Your task to perform on an android device: check battery use Image 0: 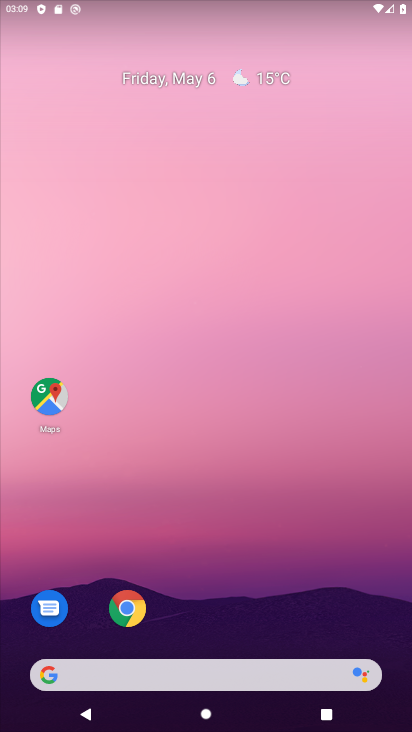
Step 0: click (120, 613)
Your task to perform on an android device: check battery use Image 1: 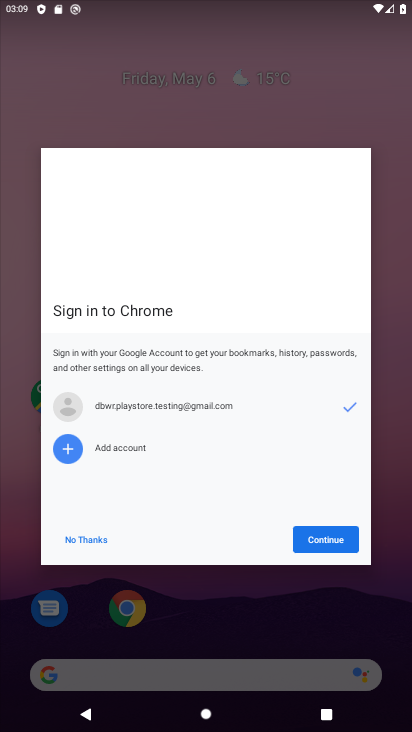
Step 1: click (120, 613)
Your task to perform on an android device: check battery use Image 2: 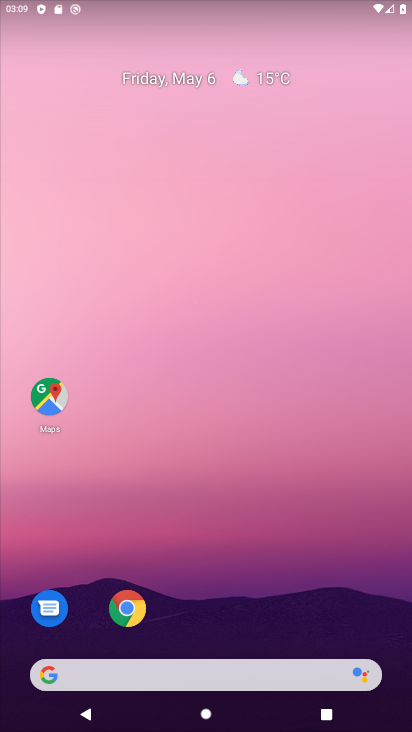
Step 2: click (126, 609)
Your task to perform on an android device: check battery use Image 3: 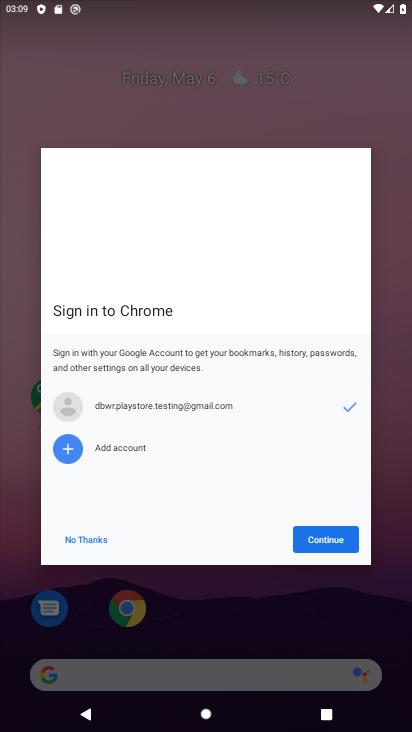
Step 3: click (335, 534)
Your task to perform on an android device: check battery use Image 4: 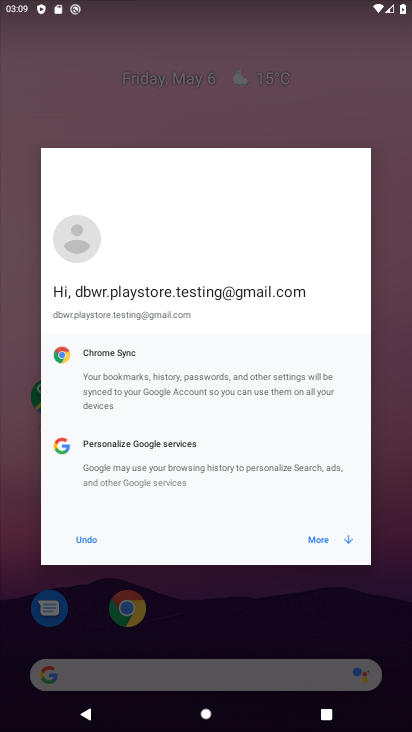
Step 4: click (335, 534)
Your task to perform on an android device: check battery use Image 5: 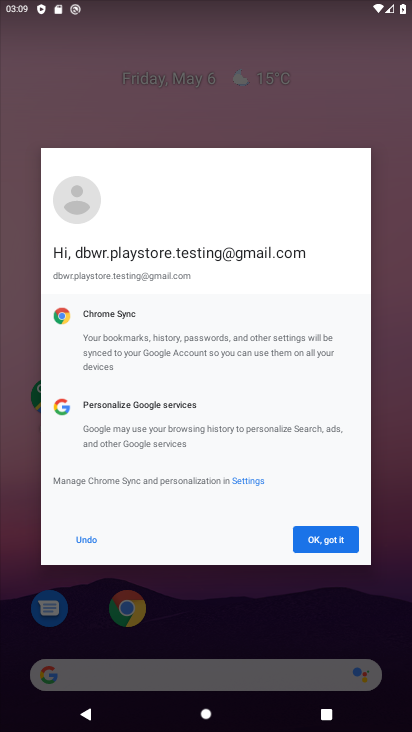
Step 5: click (335, 534)
Your task to perform on an android device: check battery use Image 6: 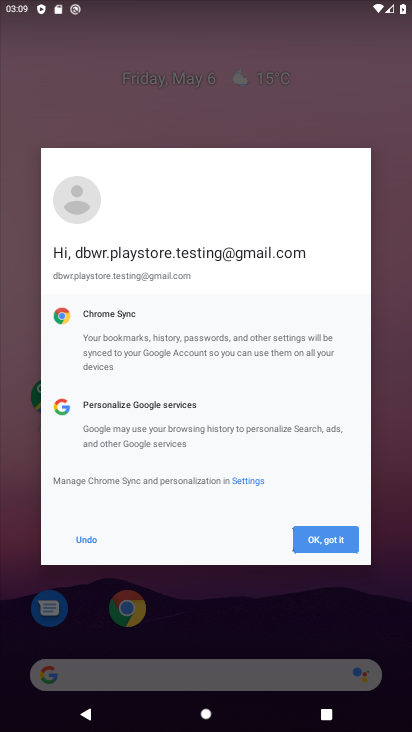
Step 6: click (324, 534)
Your task to perform on an android device: check battery use Image 7: 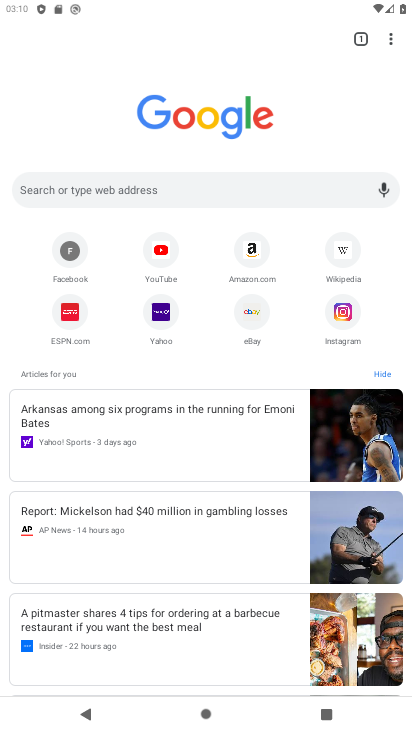
Step 7: press home button
Your task to perform on an android device: check battery use Image 8: 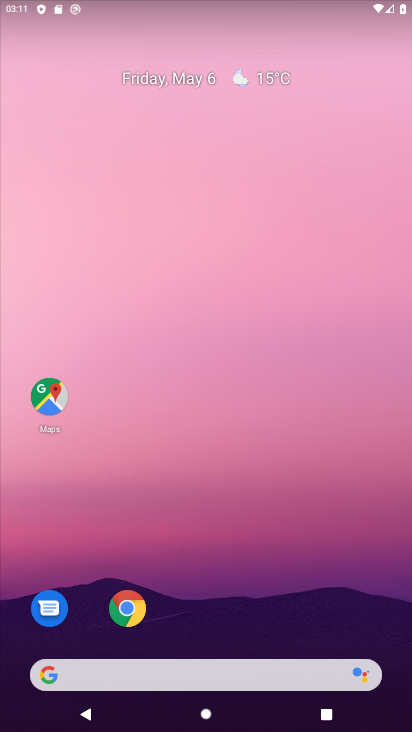
Step 8: drag from (157, 665) to (184, 140)
Your task to perform on an android device: check battery use Image 9: 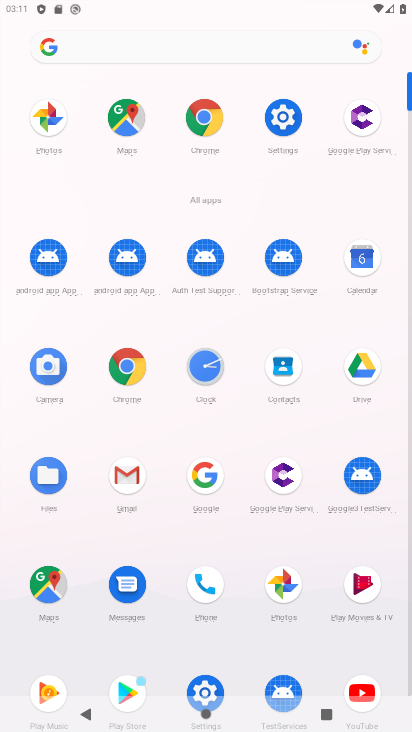
Step 9: drag from (251, 615) to (237, 210)
Your task to perform on an android device: check battery use Image 10: 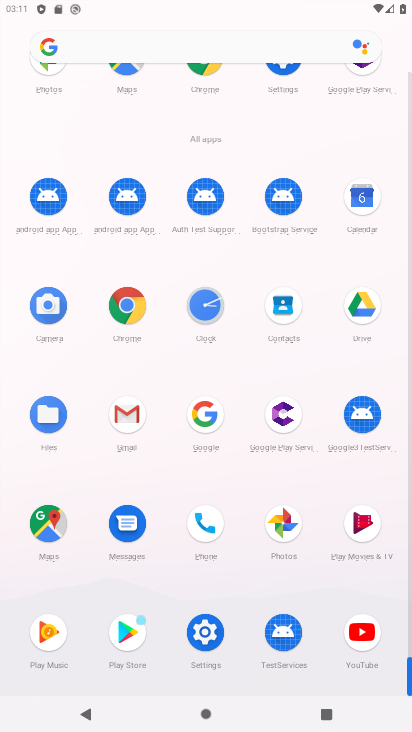
Step 10: click (206, 651)
Your task to perform on an android device: check battery use Image 11: 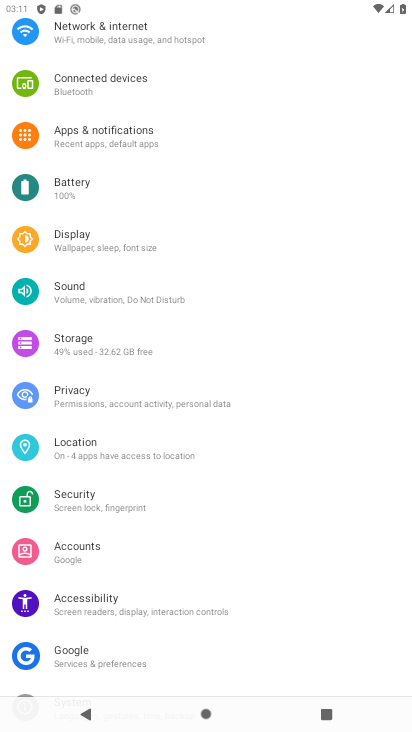
Step 11: click (127, 185)
Your task to perform on an android device: check battery use Image 12: 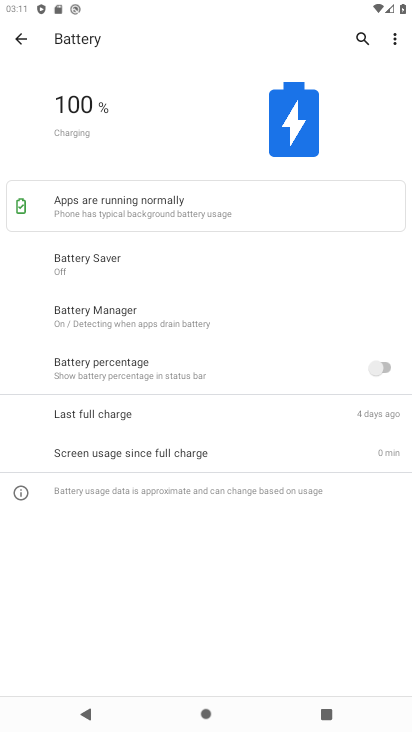
Step 12: click (387, 48)
Your task to perform on an android device: check battery use Image 13: 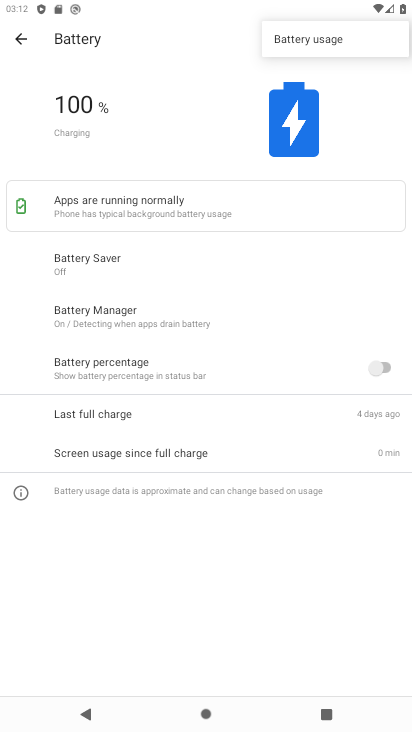
Step 13: click (325, 49)
Your task to perform on an android device: check battery use Image 14: 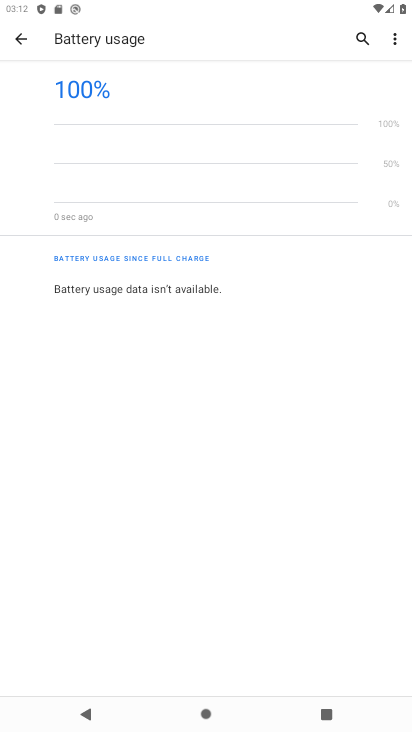
Step 14: task complete